Your task to perform on an android device: open app "Nova Launcher" (install if not already installed) Image 0: 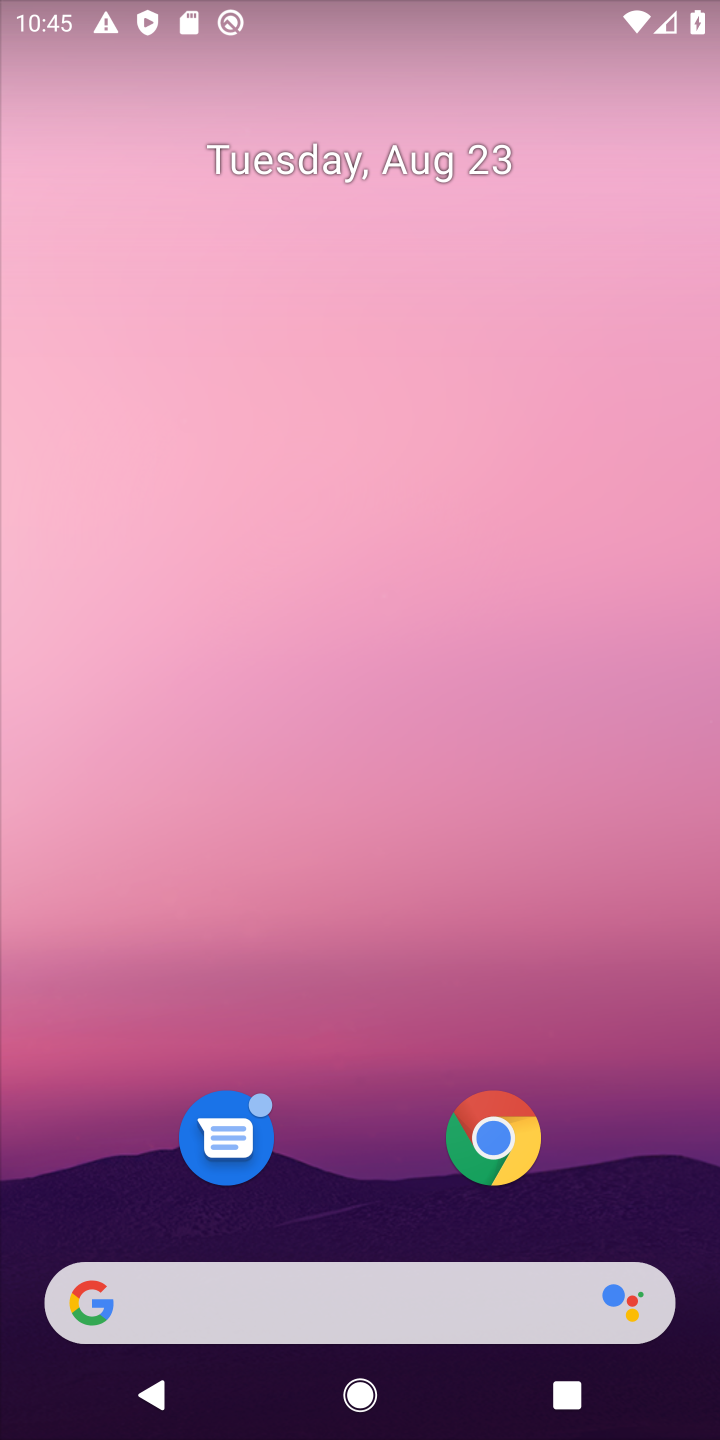
Step 0: drag from (325, 1144) to (498, 49)
Your task to perform on an android device: open app "Nova Launcher" (install if not already installed) Image 1: 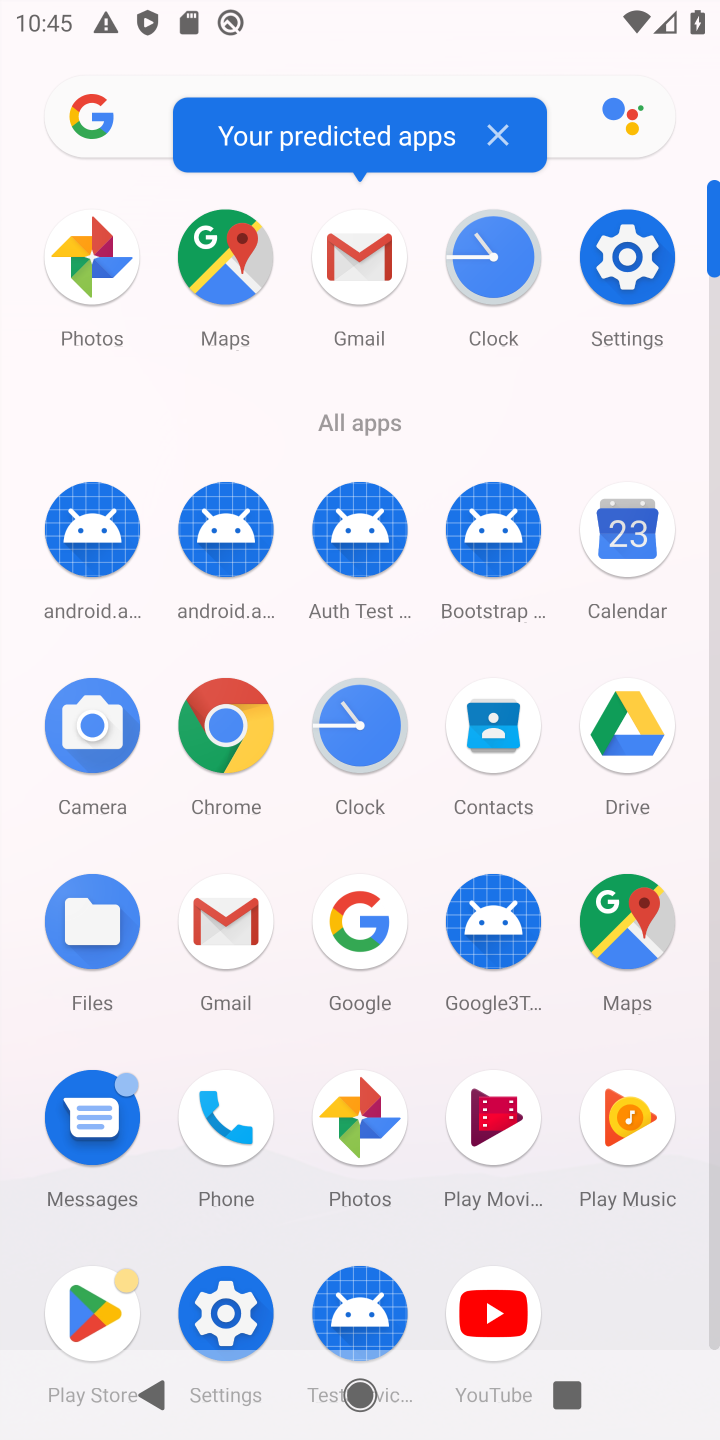
Step 1: click (79, 1309)
Your task to perform on an android device: open app "Nova Launcher" (install if not already installed) Image 2: 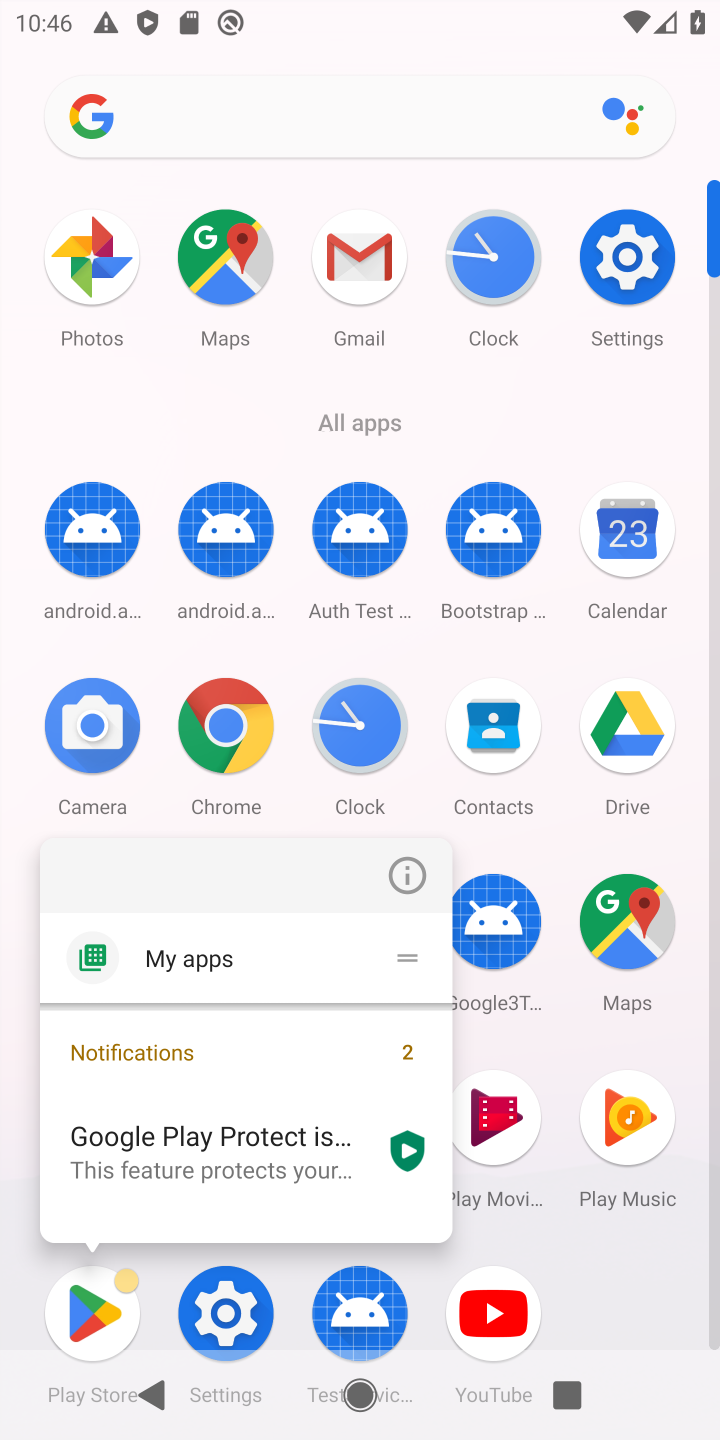
Step 2: click (100, 1341)
Your task to perform on an android device: open app "Nova Launcher" (install if not already installed) Image 3: 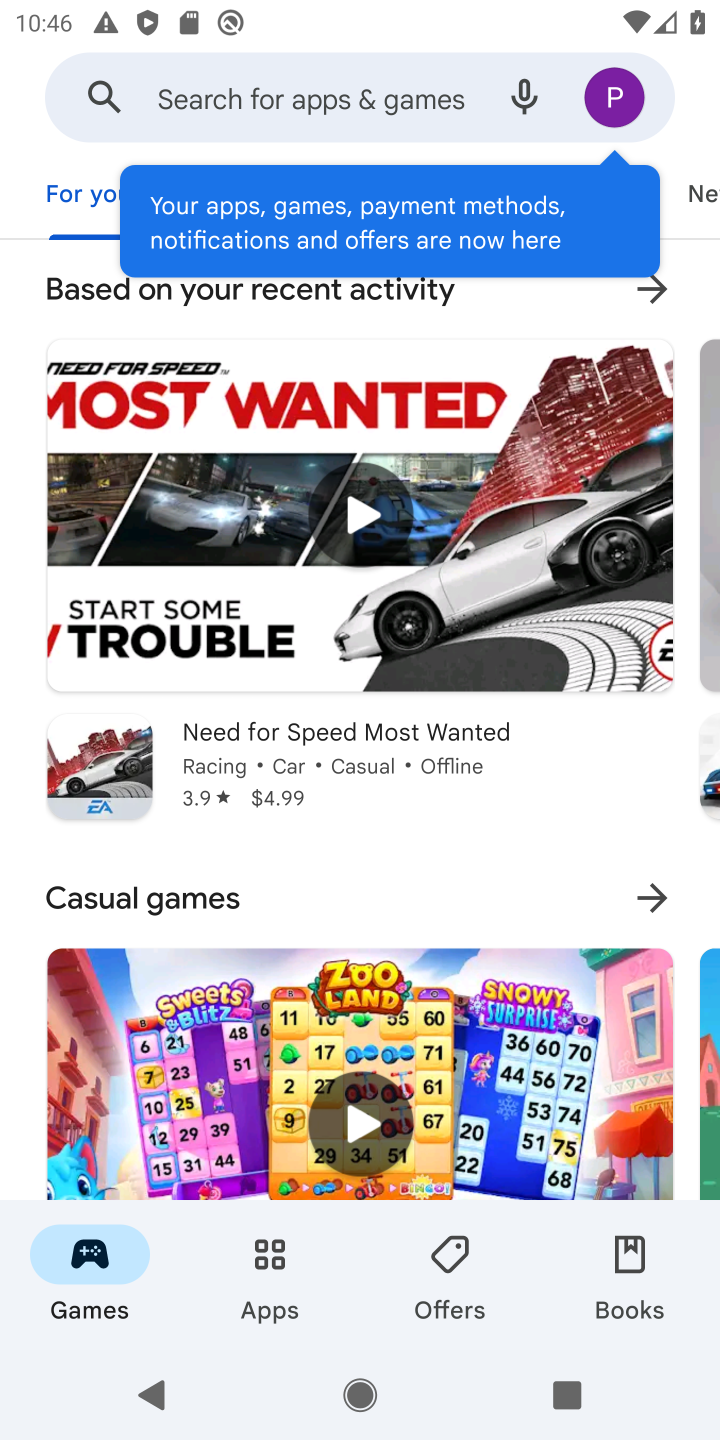
Step 3: click (235, 92)
Your task to perform on an android device: open app "Nova Launcher" (install if not already installed) Image 4: 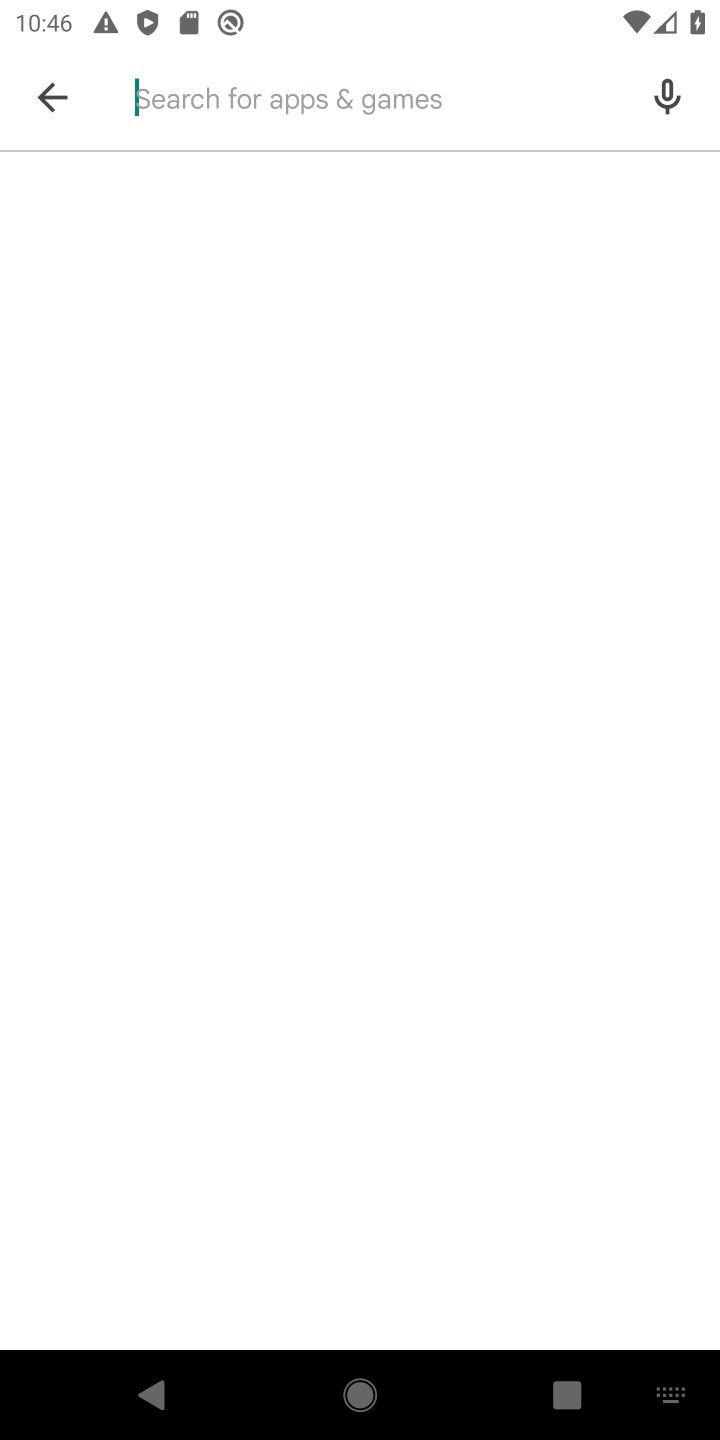
Step 4: type "Nova Launcher"
Your task to perform on an android device: open app "Nova Launcher" (install if not already installed) Image 5: 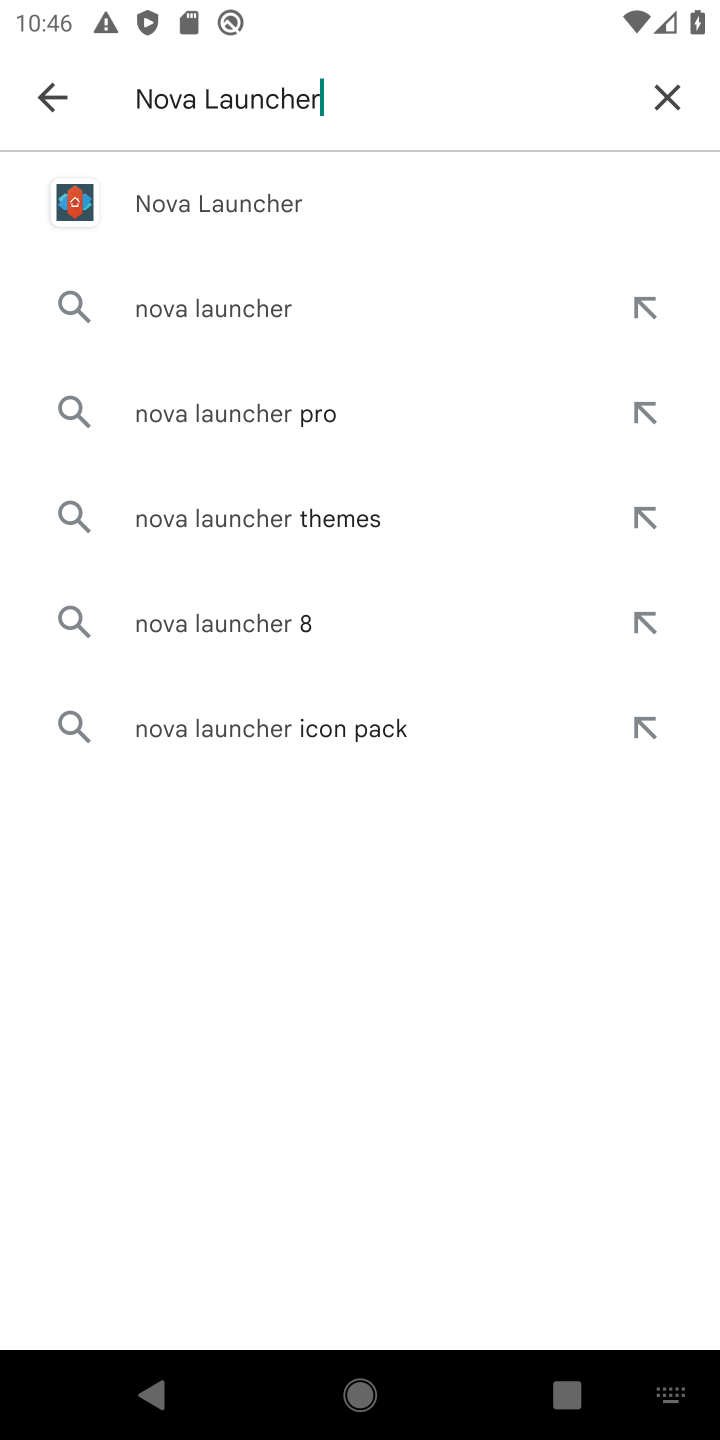
Step 5: click (189, 191)
Your task to perform on an android device: open app "Nova Launcher" (install if not already installed) Image 6: 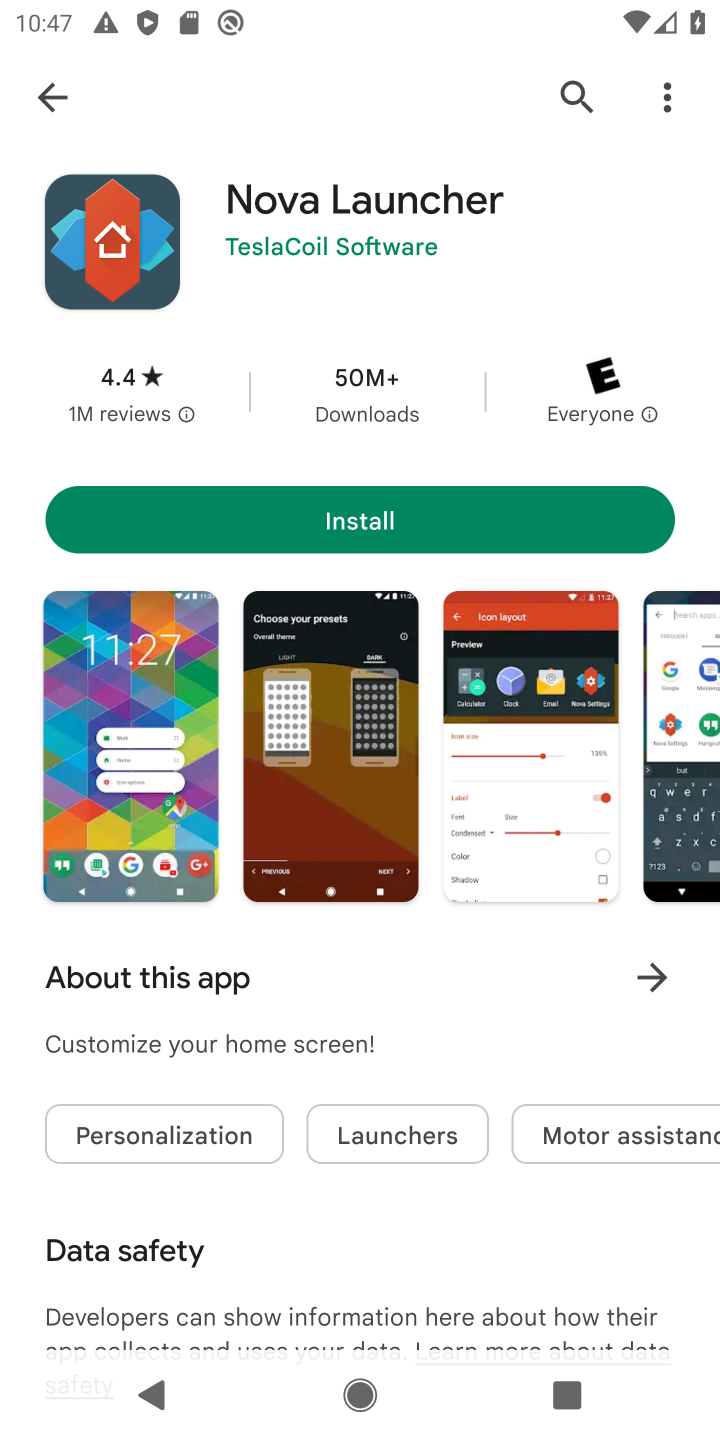
Step 6: click (440, 527)
Your task to perform on an android device: open app "Nova Launcher" (install if not already installed) Image 7: 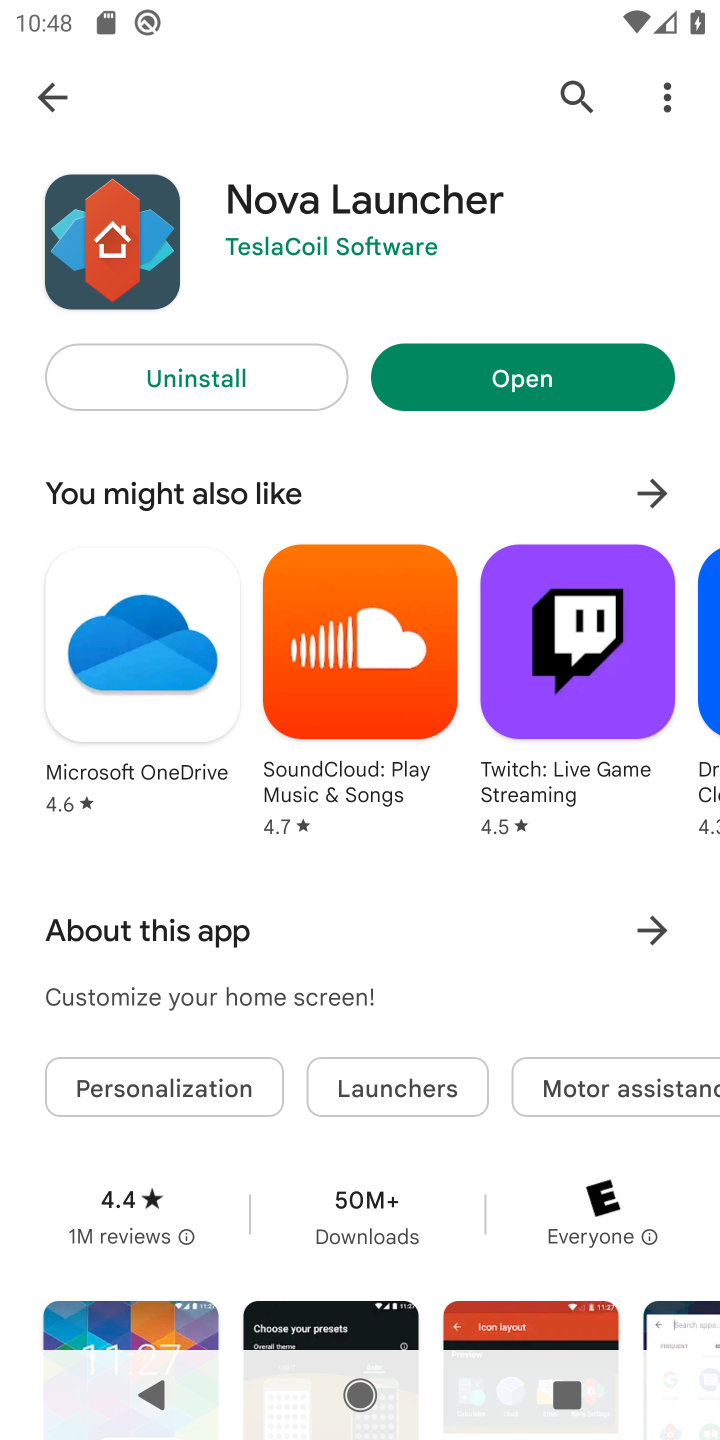
Step 7: click (535, 365)
Your task to perform on an android device: open app "Nova Launcher" (install if not already installed) Image 8: 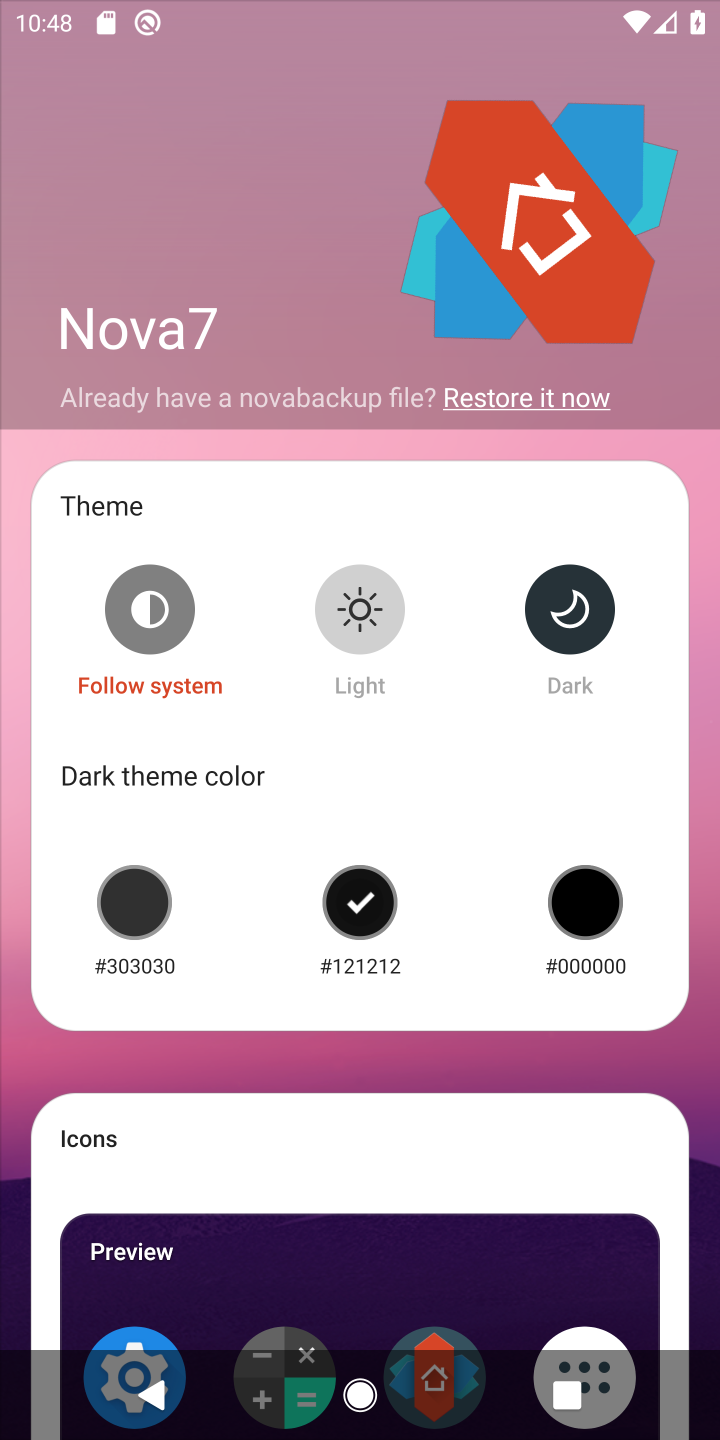
Step 8: task complete